Your task to perform on an android device: add a contact in the contacts app Image 0: 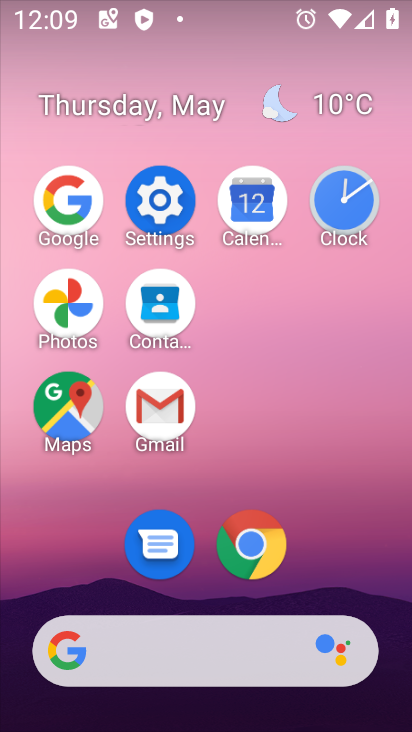
Step 0: click (178, 317)
Your task to perform on an android device: add a contact in the contacts app Image 1: 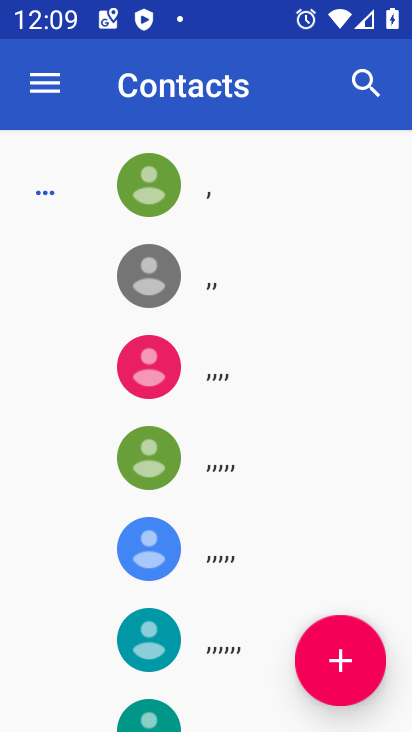
Step 1: click (366, 666)
Your task to perform on an android device: add a contact in the contacts app Image 2: 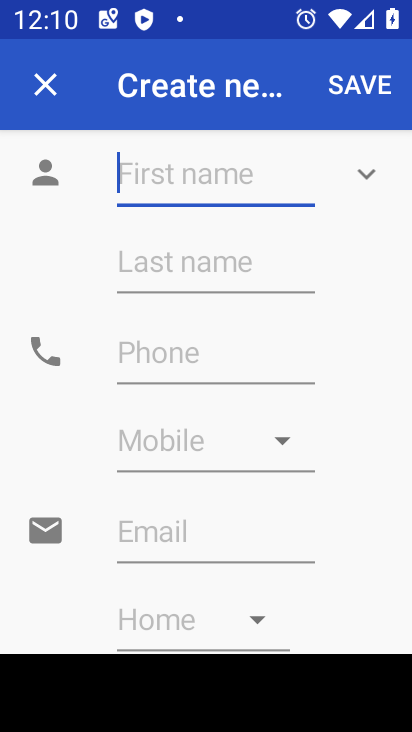
Step 2: type "zzz"
Your task to perform on an android device: add a contact in the contacts app Image 3: 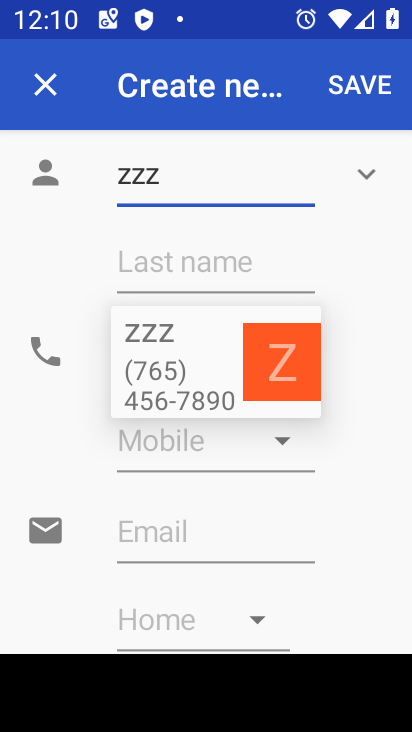
Step 3: click (180, 362)
Your task to perform on an android device: add a contact in the contacts app Image 4: 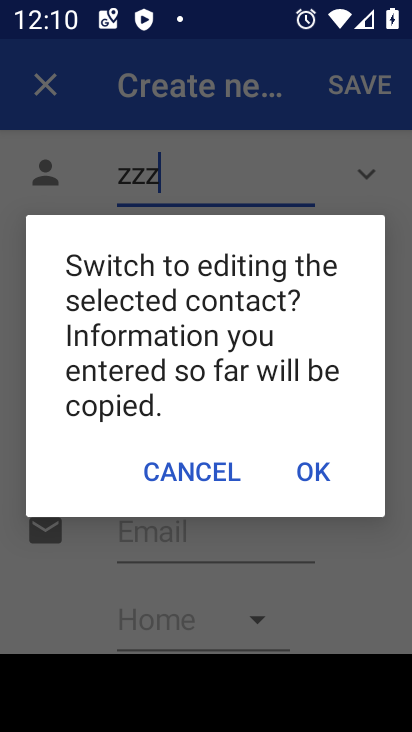
Step 4: click (189, 457)
Your task to perform on an android device: add a contact in the contacts app Image 5: 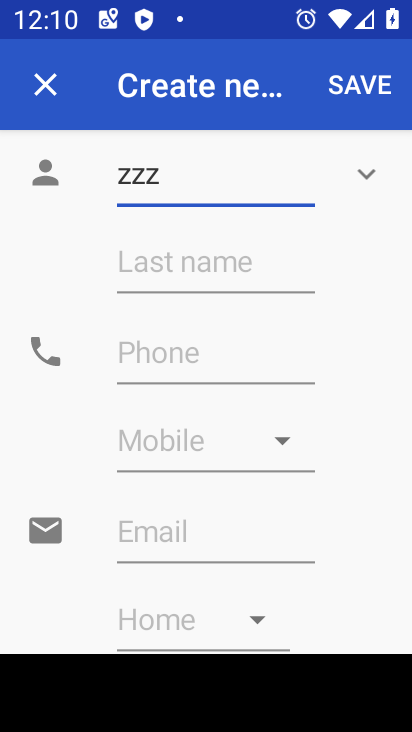
Step 5: click (199, 272)
Your task to perform on an android device: add a contact in the contacts app Image 6: 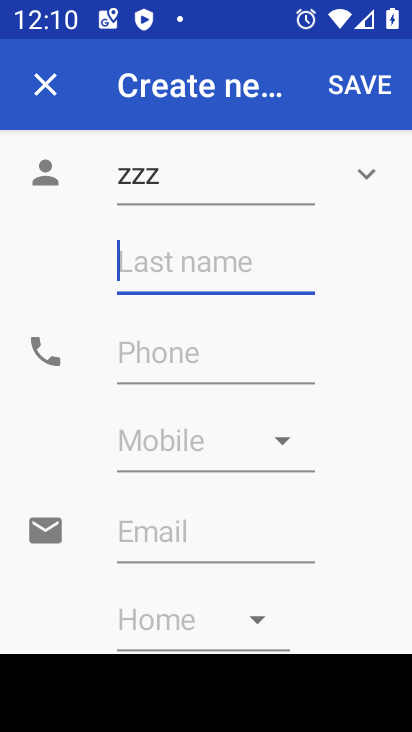
Step 6: type "ss"
Your task to perform on an android device: add a contact in the contacts app Image 7: 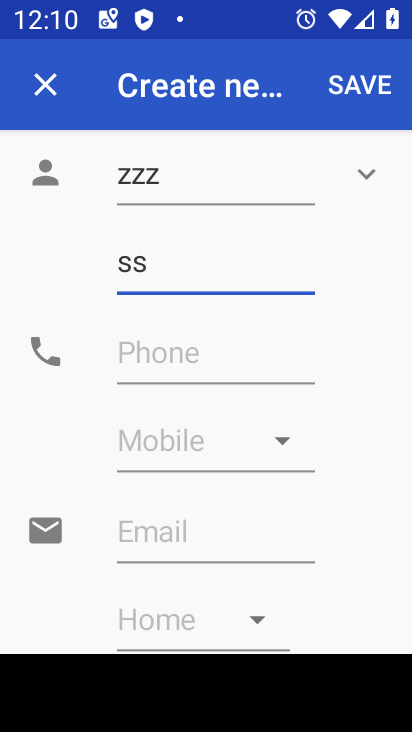
Step 7: click (251, 367)
Your task to perform on an android device: add a contact in the contacts app Image 8: 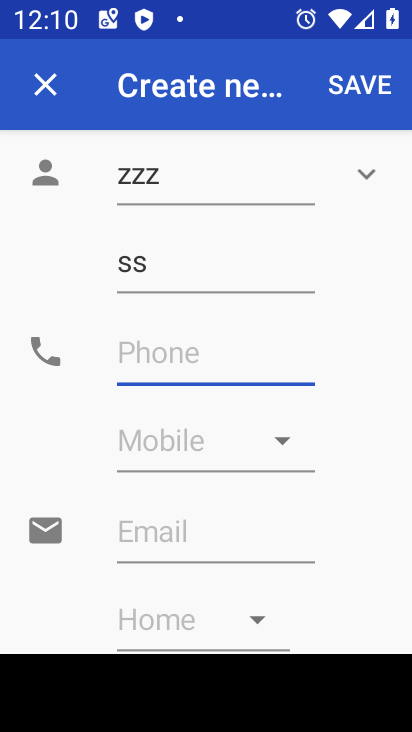
Step 8: type "1231231231"
Your task to perform on an android device: add a contact in the contacts app Image 9: 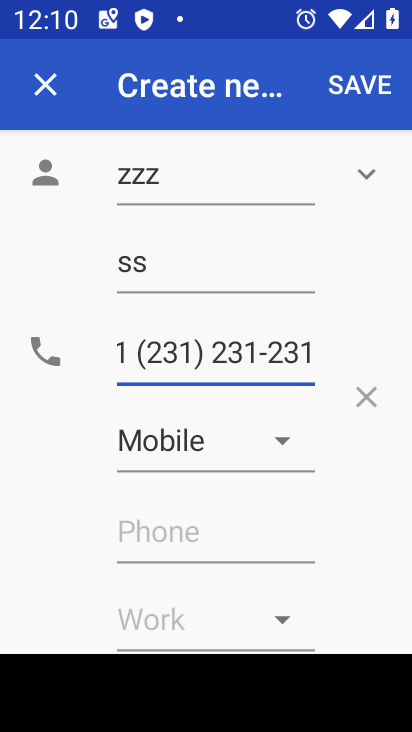
Step 9: click (374, 83)
Your task to perform on an android device: add a contact in the contacts app Image 10: 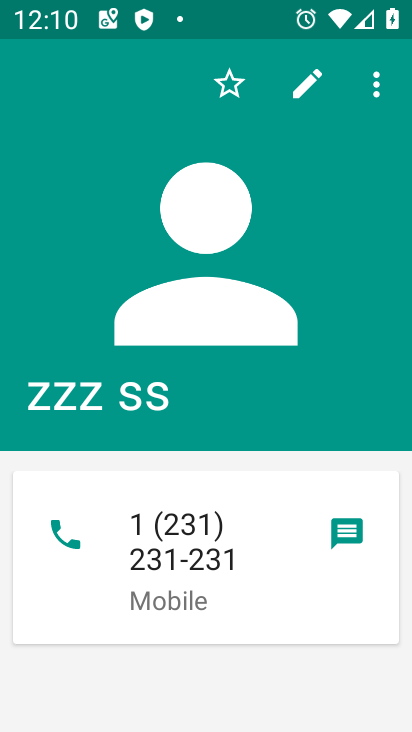
Step 10: task complete